Your task to perform on an android device: turn on showing notifications on the lock screen Image 0: 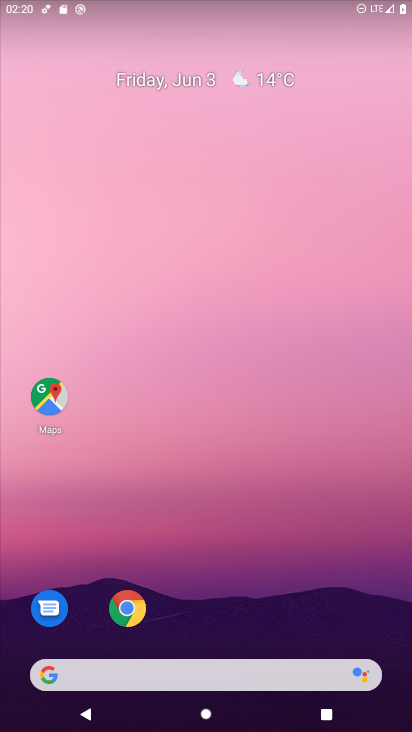
Step 0: drag from (261, 609) to (295, 175)
Your task to perform on an android device: turn on showing notifications on the lock screen Image 1: 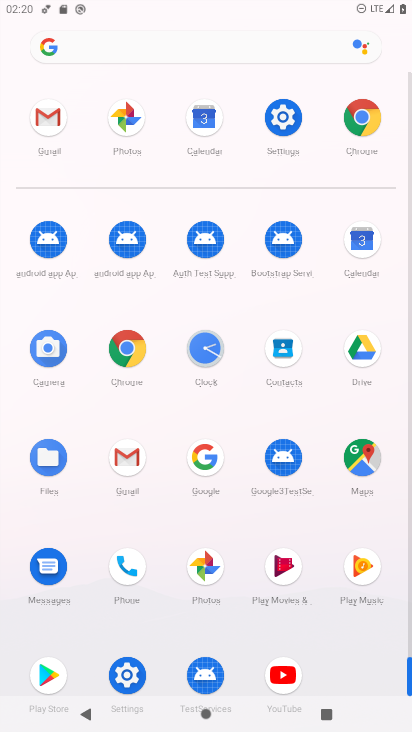
Step 1: click (290, 113)
Your task to perform on an android device: turn on showing notifications on the lock screen Image 2: 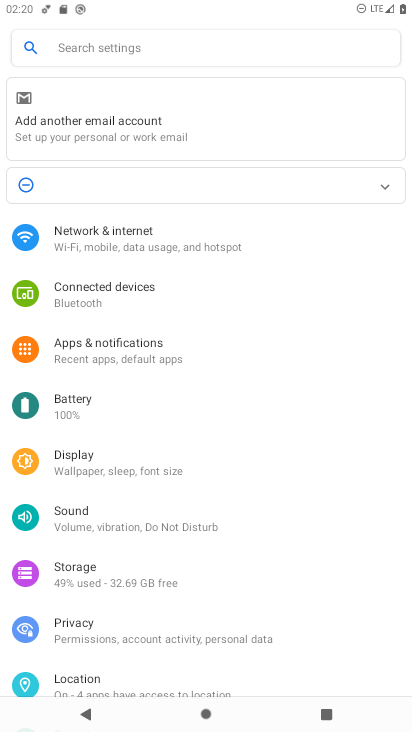
Step 2: click (149, 362)
Your task to perform on an android device: turn on showing notifications on the lock screen Image 3: 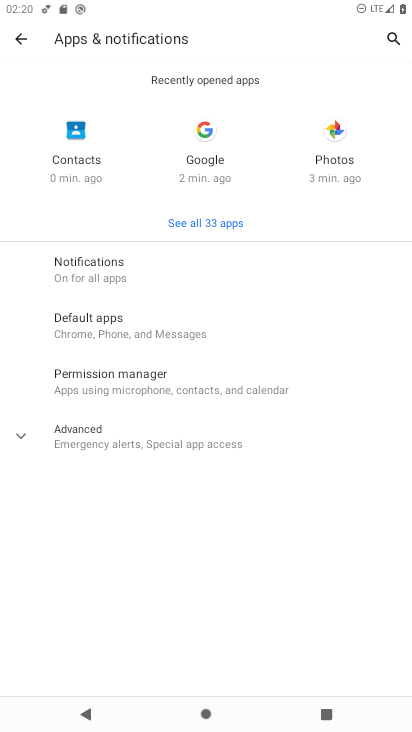
Step 3: click (114, 275)
Your task to perform on an android device: turn on showing notifications on the lock screen Image 4: 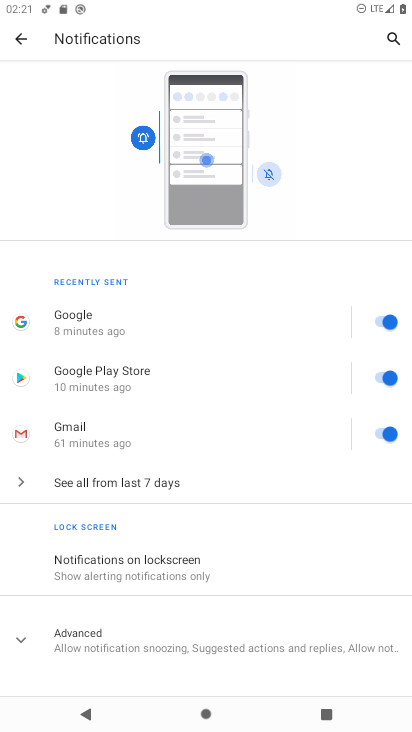
Step 4: click (131, 550)
Your task to perform on an android device: turn on showing notifications on the lock screen Image 5: 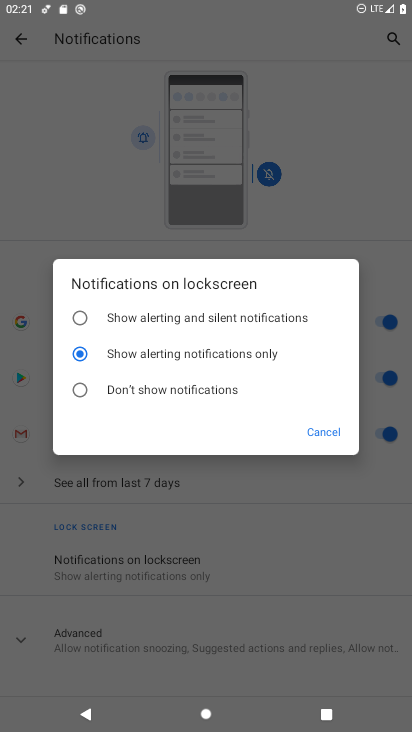
Step 5: task complete